Your task to perform on an android device: turn on improve location accuracy Image 0: 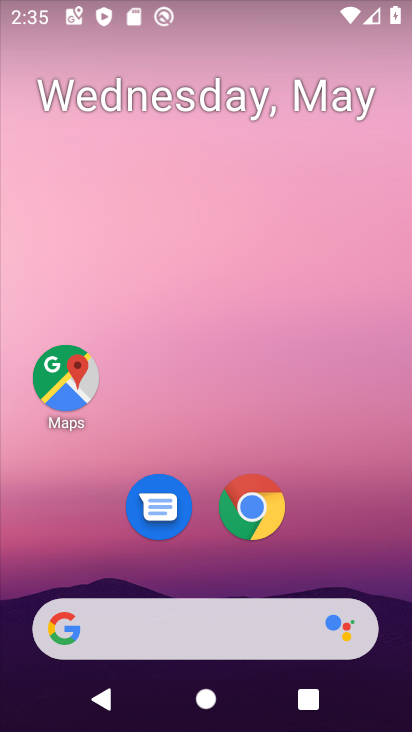
Step 0: drag from (193, 544) to (197, 0)
Your task to perform on an android device: turn on improve location accuracy Image 1: 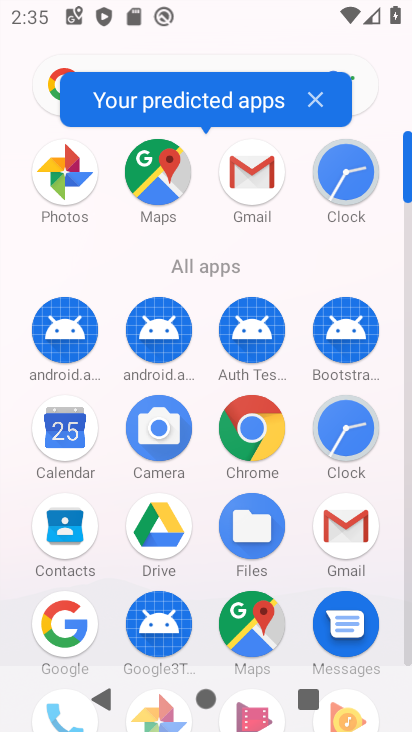
Step 1: drag from (187, 530) to (181, 138)
Your task to perform on an android device: turn on improve location accuracy Image 2: 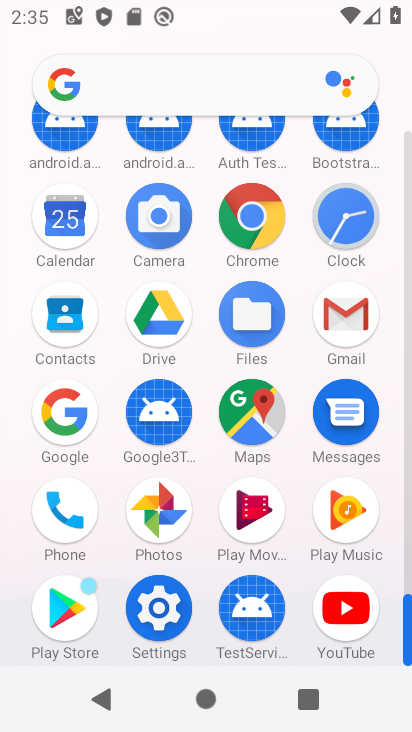
Step 2: click (166, 608)
Your task to perform on an android device: turn on improve location accuracy Image 3: 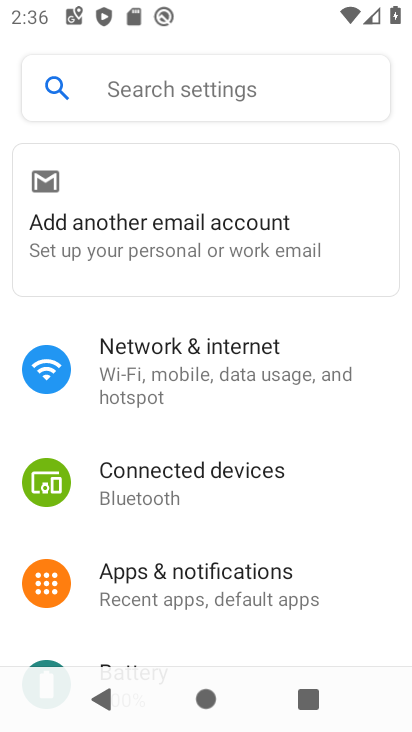
Step 3: drag from (247, 444) to (267, 273)
Your task to perform on an android device: turn on improve location accuracy Image 4: 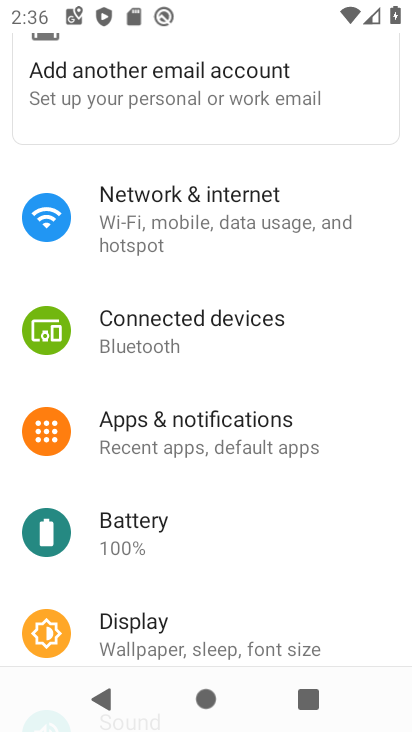
Step 4: drag from (258, 589) to (276, 386)
Your task to perform on an android device: turn on improve location accuracy Image 5: 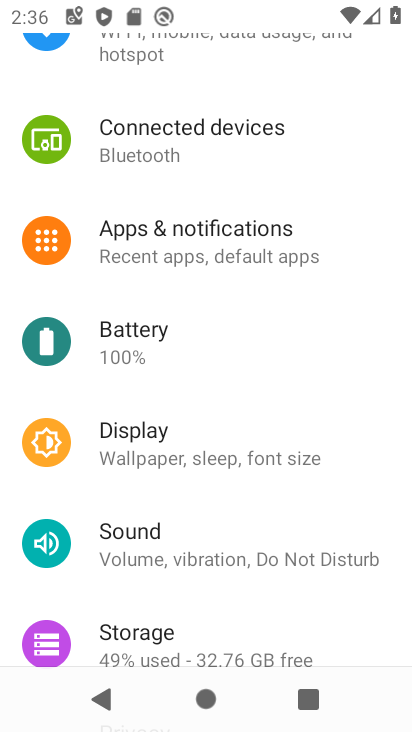
Step 5: drag from (208, 583) to (227, 289)
Your task to perform on an android device: turn on improve location accuracy Image 6: 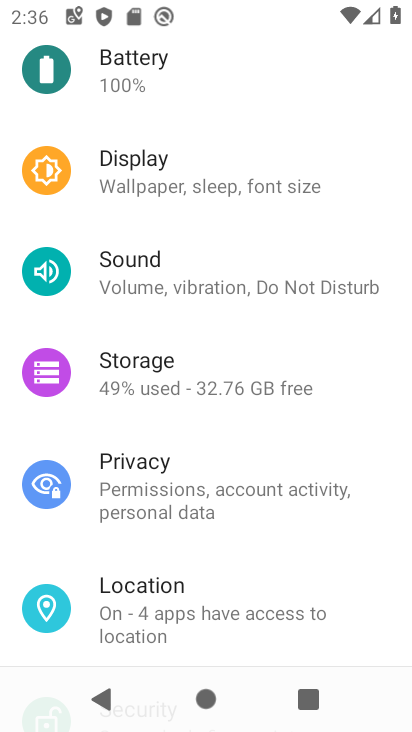
Step 6: click (154, 601)
Your task to perform on an android device: turn on improve location accuracy Image 7: 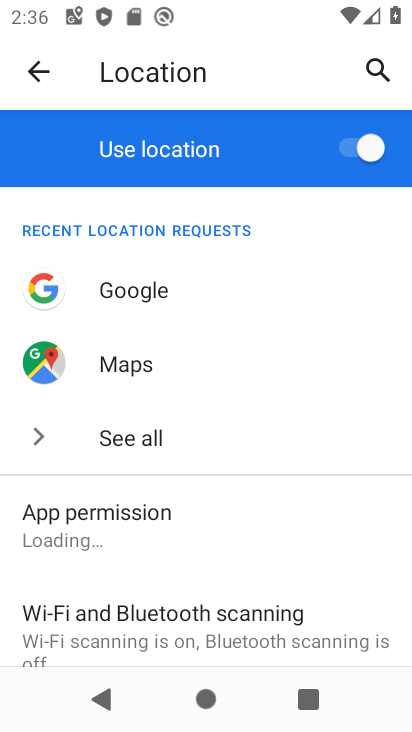
Step 7: drag from (181, 537) to (207, 261)
Your task to perform on an android device: turn on improve location accuracy Image 8: 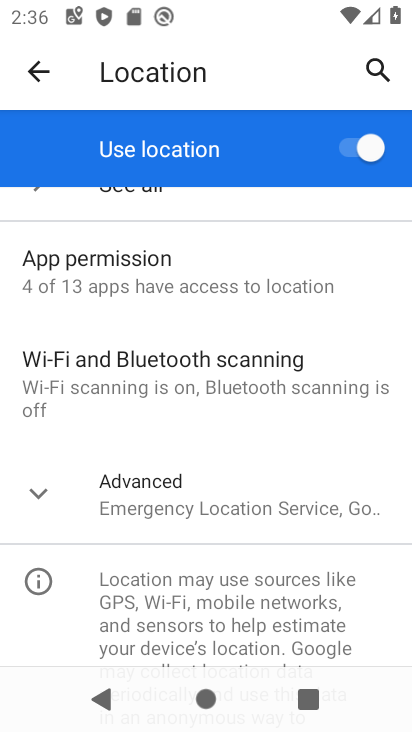
Step 8: drag from (171, 553) to (206, 372)
Your task to perform on an android device: turn on improve location accuracy Image 9: 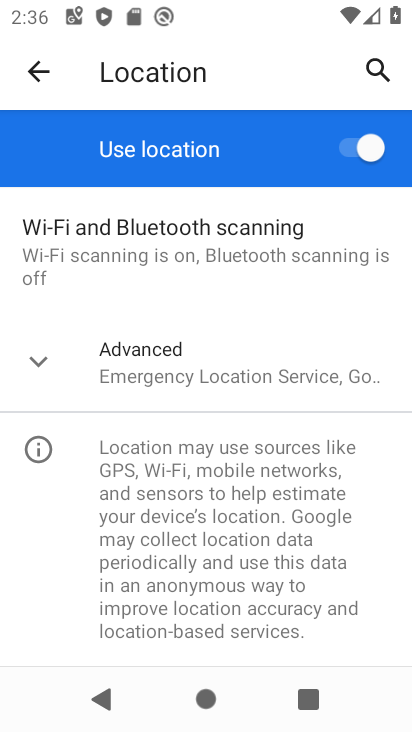
Step 9: click (159, 376)
Your task to perform on an android device: turn on improve location accuracy Image 10: 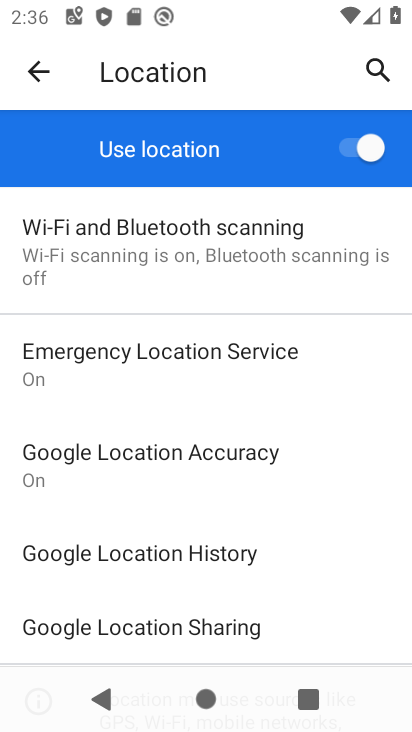
Step 10: click (170, 471)
Your task to perform on an android device: turn on improve location accuracy Image 11: 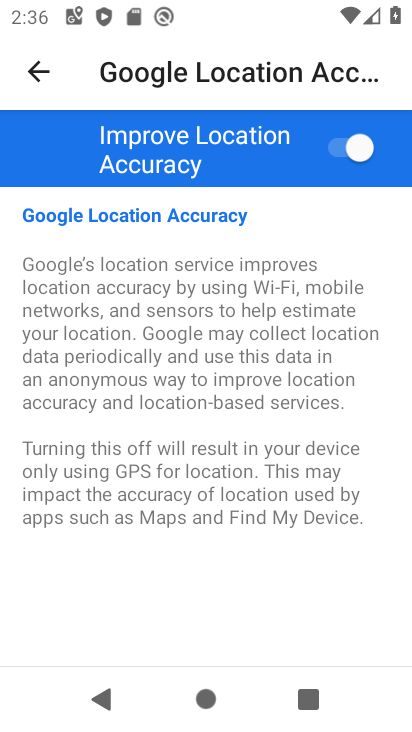
Step 11: task complete